Your task to perform on an android device: check the backup settings in the google photos Image 0: 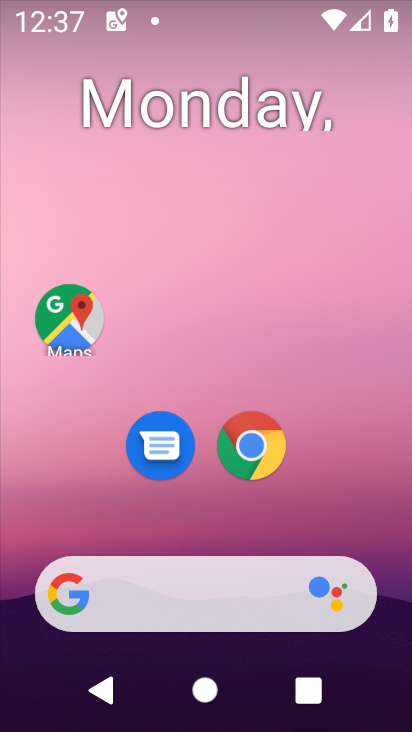
Step 0: drag from (328, 514) to (244, 2)
Your task to perform on an android device: check the backup settings in the google photos Image 1: 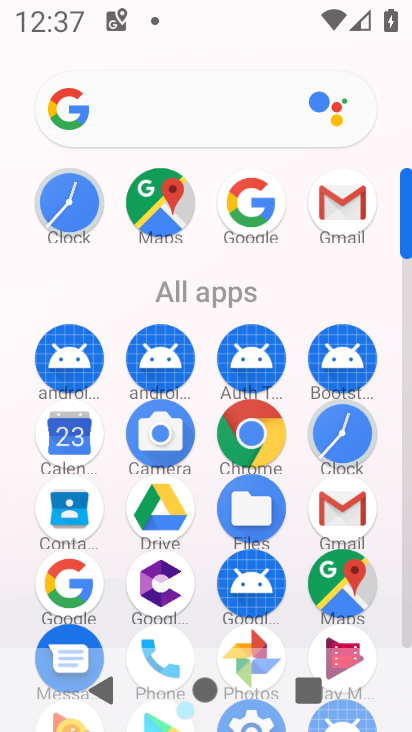
Step 1: drag from (199, 523) to (209, 299)
Your task to perform on an android device: check the backup settings in the google photos Image 2: 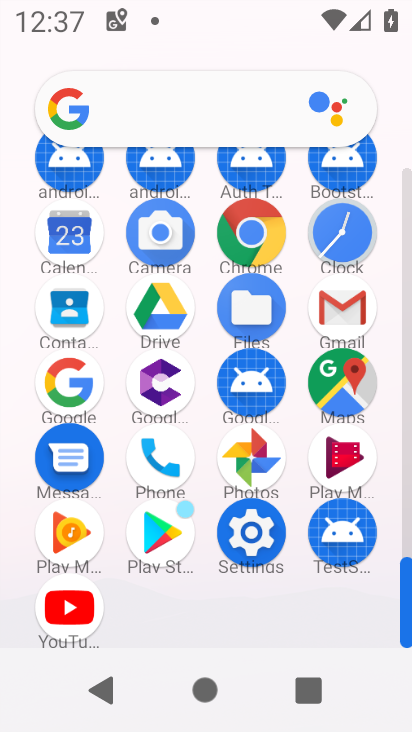
Step 2: click (250, 457)
Your task to perform on an android device: check the backup settings in the google photos Image 3: 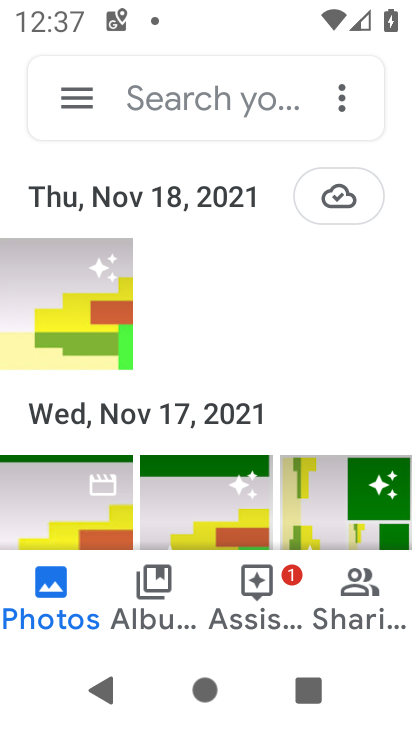
Step 3: click (75, 97)
Your task to perform on an android device: check the backup settings in the google photos Image 4: 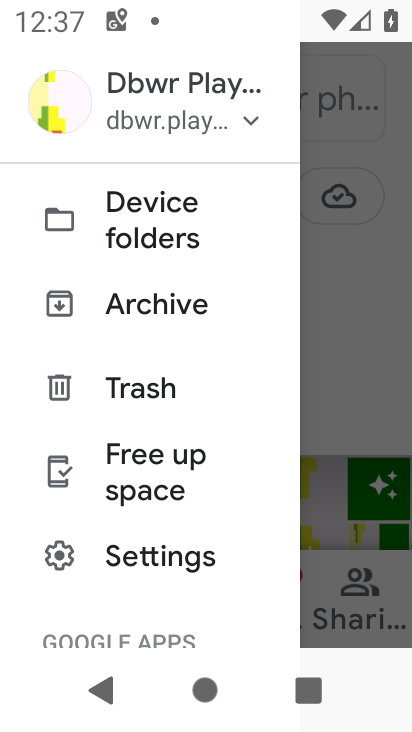
Step 4: drag from (163, 506) to (205, 385)
Your task to perform on an android device: check the backup settings in the google photos Image 5: 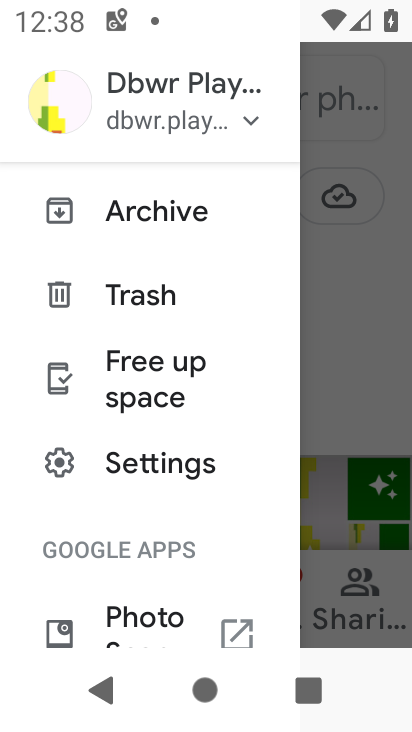
Step 5: click (162, 455)
Your task to perform on an android device: check the backup settings in the google photos Image 6: 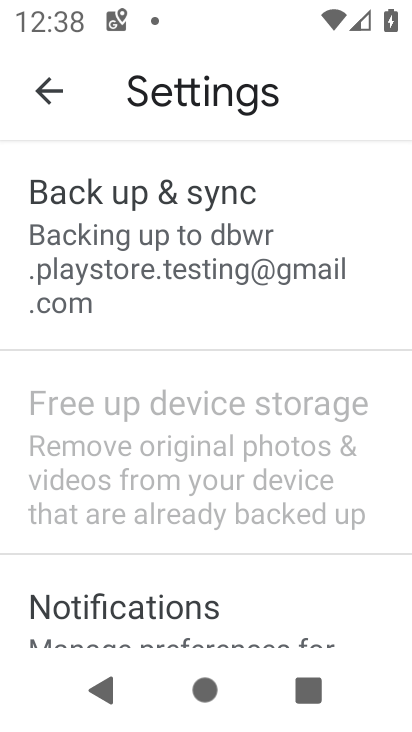
Step 6: click (186, 204)
Your task to perform on an android device: check the backup settings in the google photos Image 7: 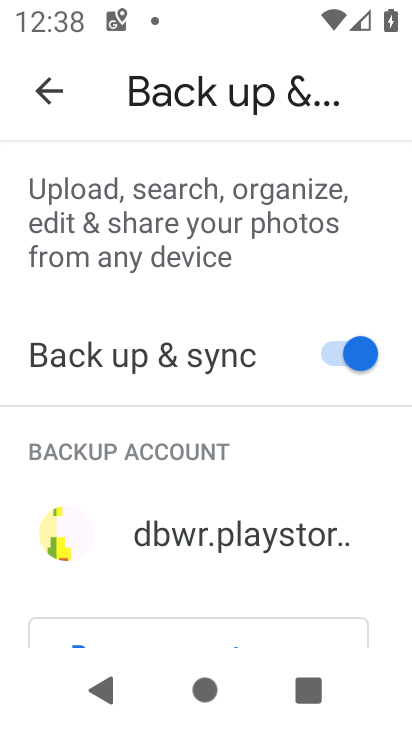
Step 7: task complete